Your task to perform on an android device: How do I get to the nearest Sprint Store? Image 0: 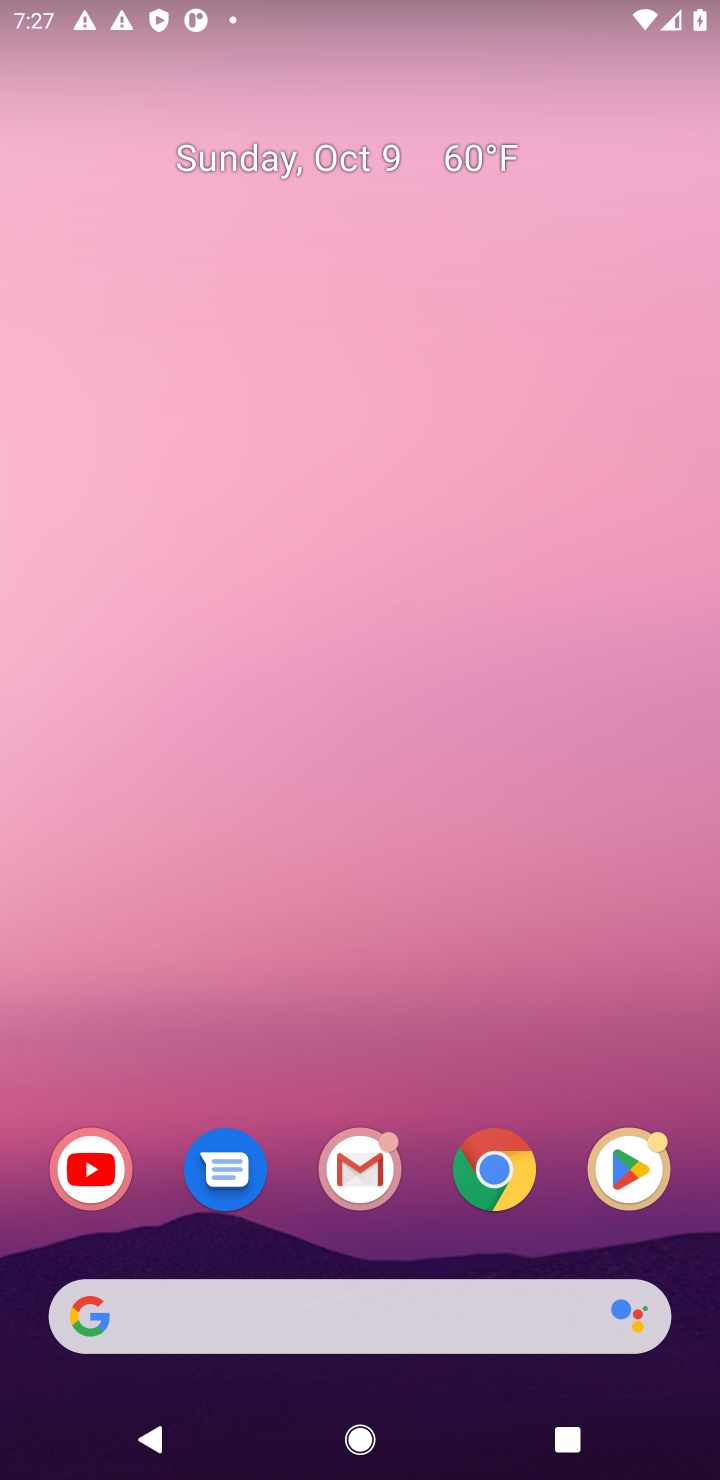
Step 0: drag from (438, 1254) to (458, 292)
Your task to perform on an android device: How do I get to the nearest Sprint Store? Image 1: 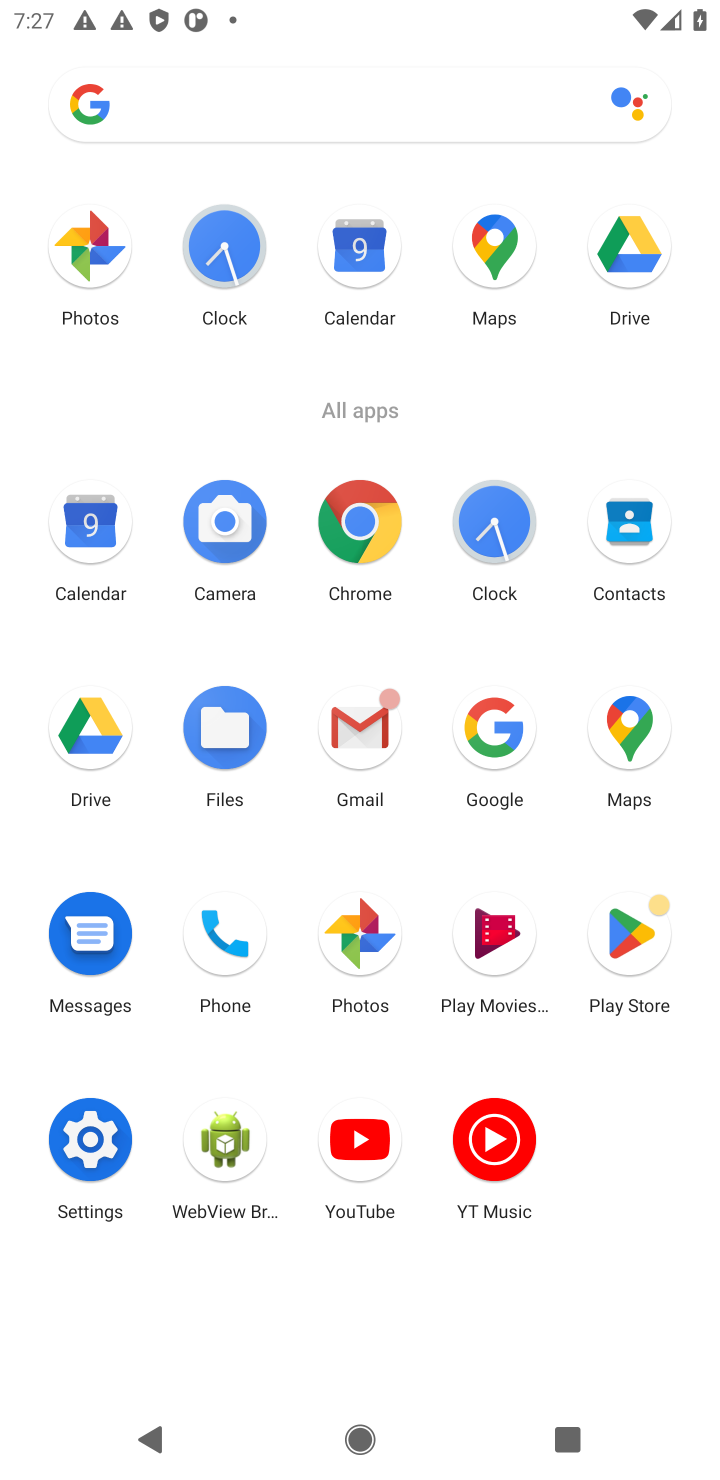
Step 1: click (354, 532)
Your task to perform on an android device: How do I get to the nearest Sprint Store? Image 2: 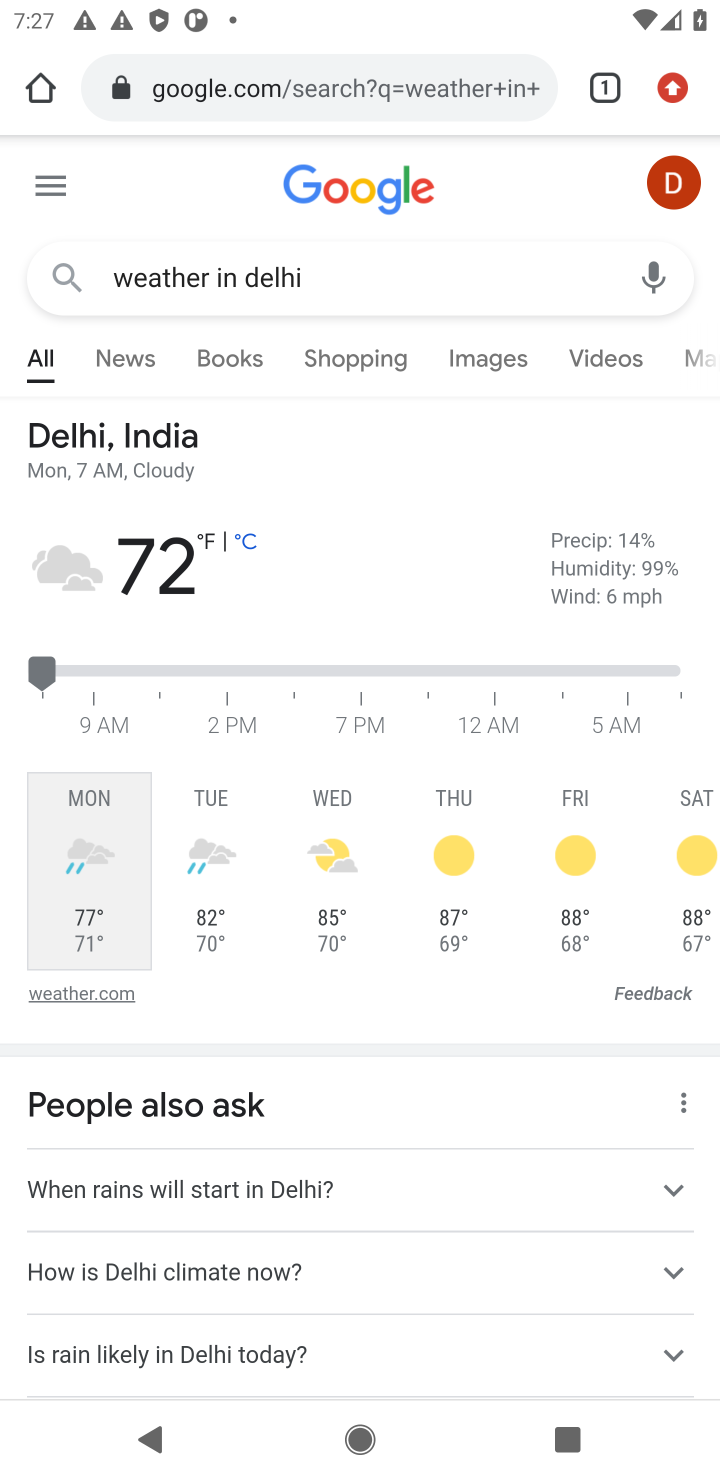
Step 2: click (384, 87)
Your task to perform on an android device: How do I get to the nearest Sprint Store? Image 3: 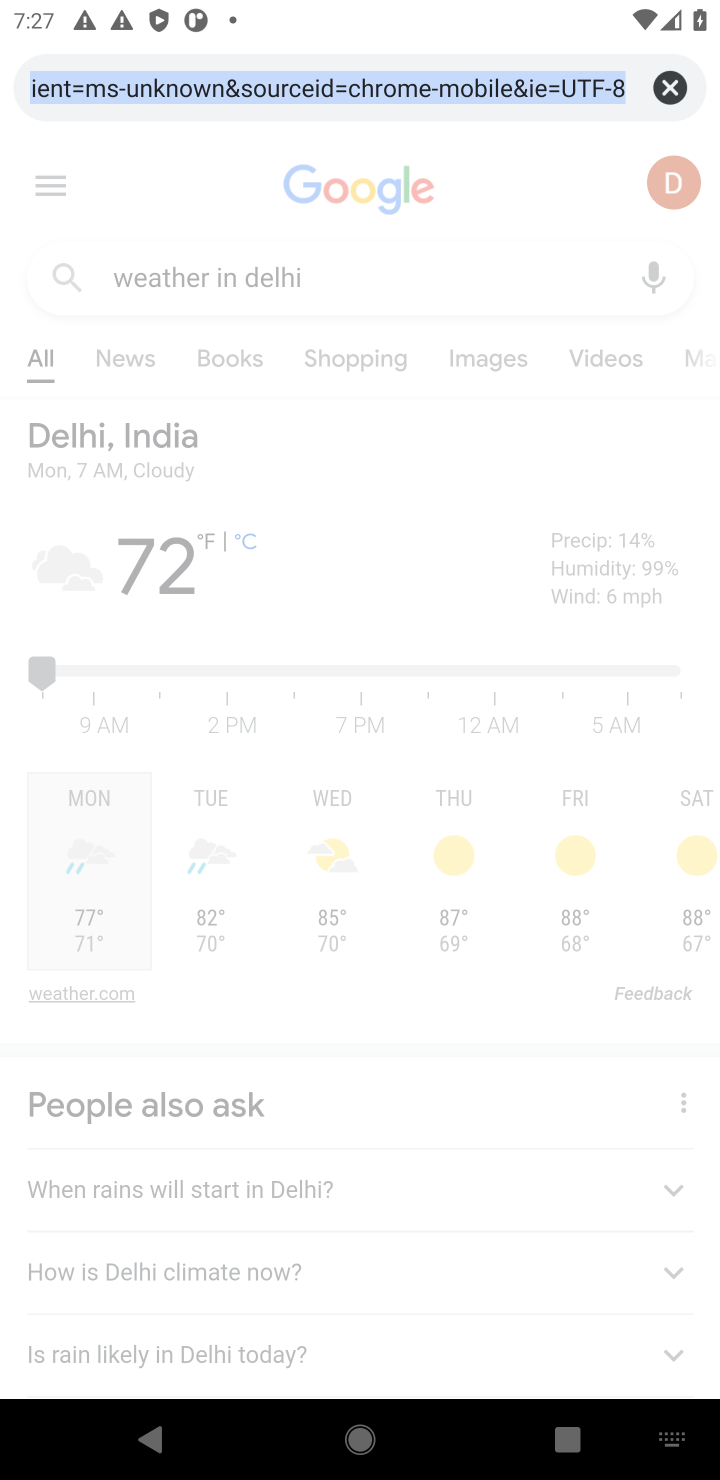
Step 3: type "nearest sprint store"
Your task to perform on an android device: How do I get to the nearest Sprint Store? Image 4: 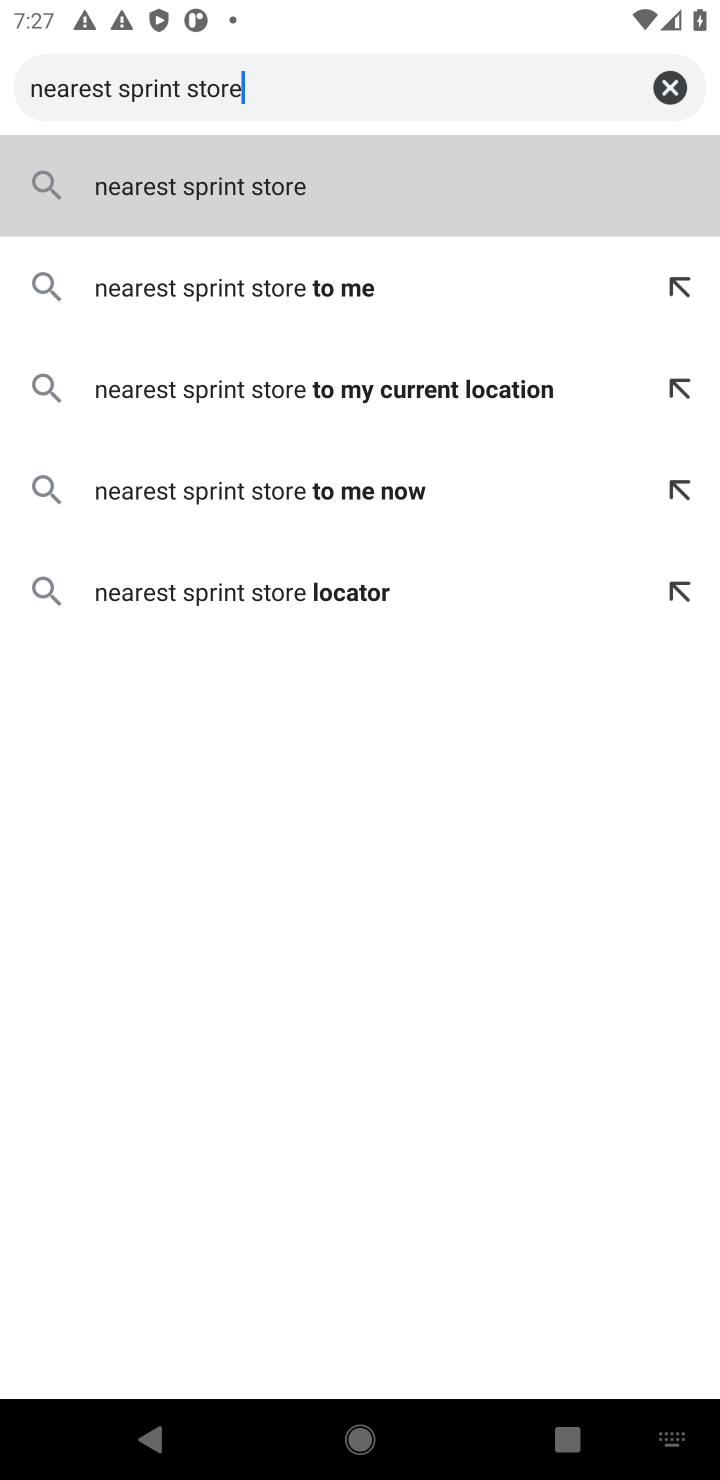
Step 4: click (158, 174)
Your task to perform on an android device: How do I get to the nearest Sprint Store? Image 5: 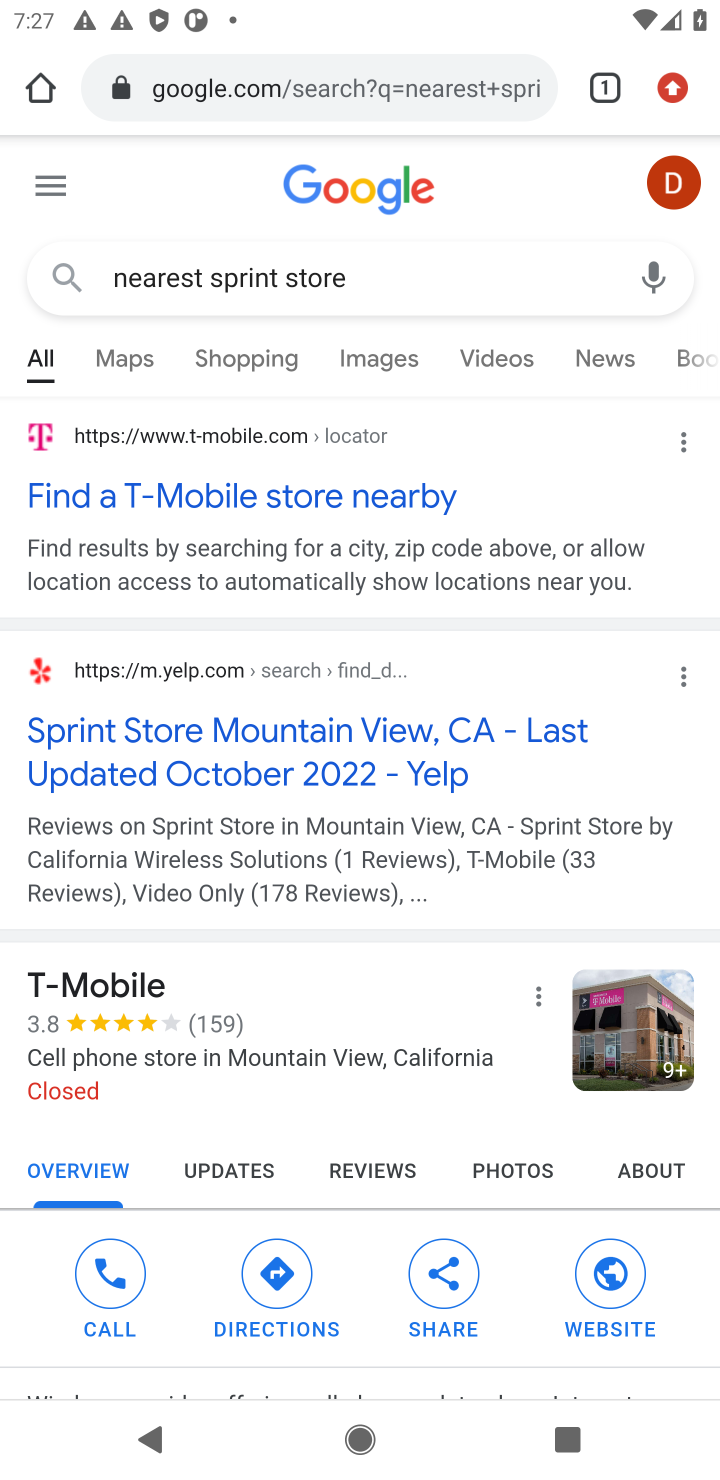
Step 5: task complete